Your task to perform on an android device: What's the weather today? Image 0: 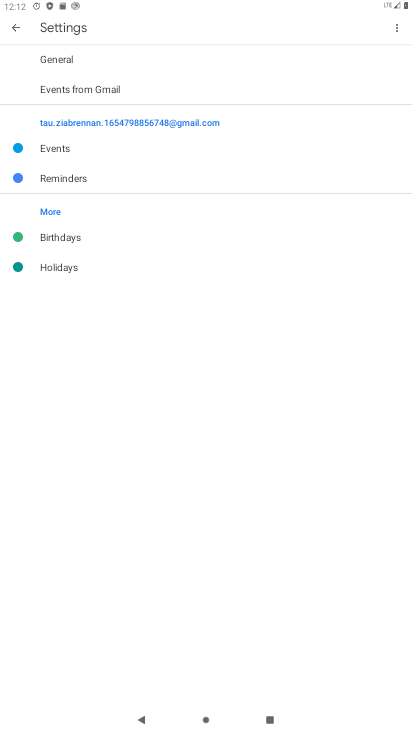
Step 0: press home button
Your task to perform on an android device: What's the weather today? Image 1: 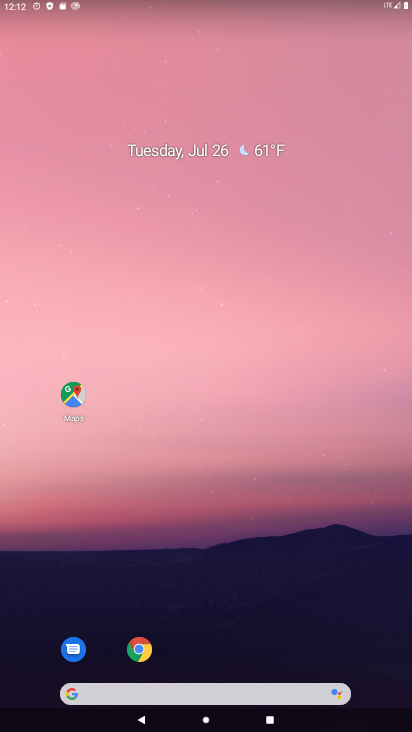
Step 1: drag from (230, 679) to (202, 57)
Your task to perform on an android device: What's the weather today? Image 2: 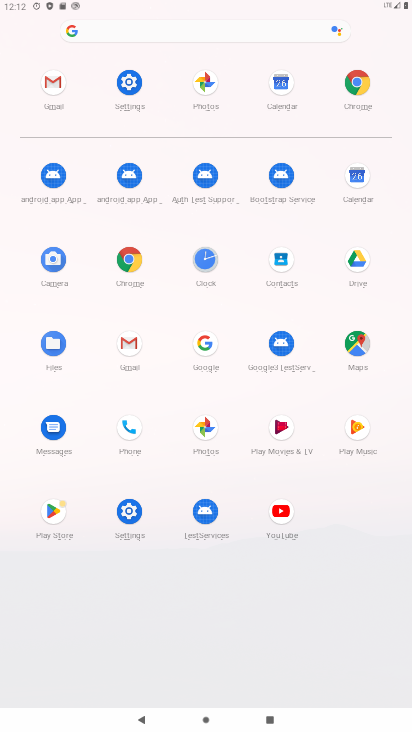
Step 2: click (205, 348)
Your task to perform on an android device: What's the weather today? Image 3: 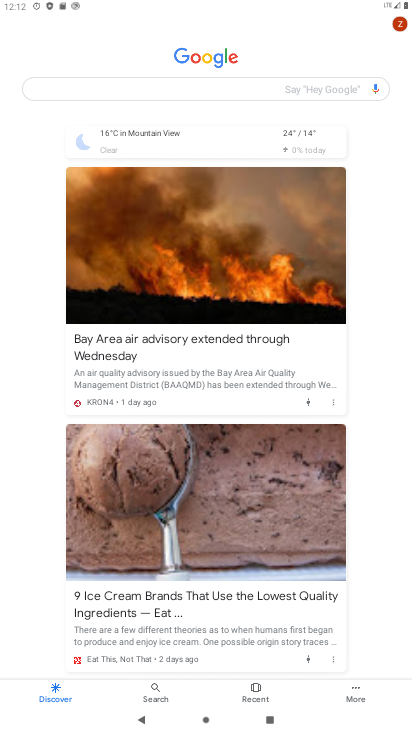
Step 3: click (187, 85)
Your task to perform on an android device: What's the weather today? Image 4: 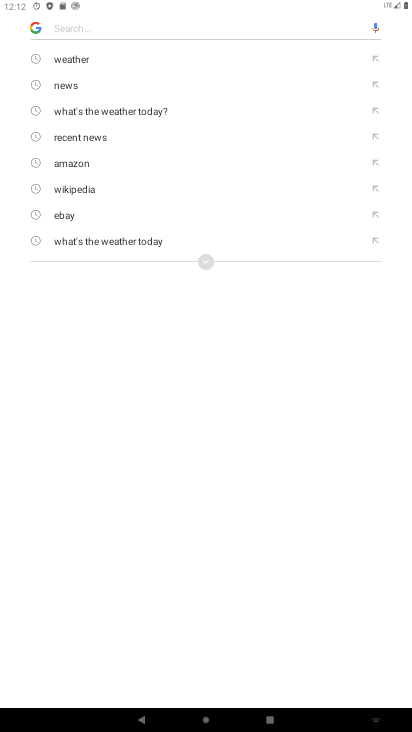
Step 4: click (21, 60)
Your task to perform on an android device: What's the weather today? Image 5: 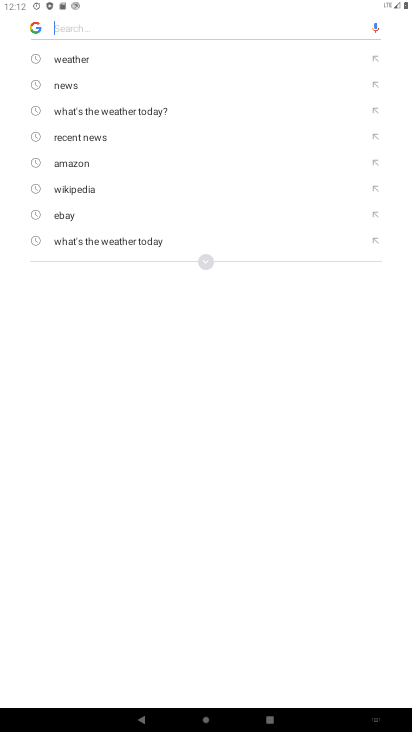
Step 5: click (69, 59)
Your task to perform on an android device: What's the weather today? Image 6: 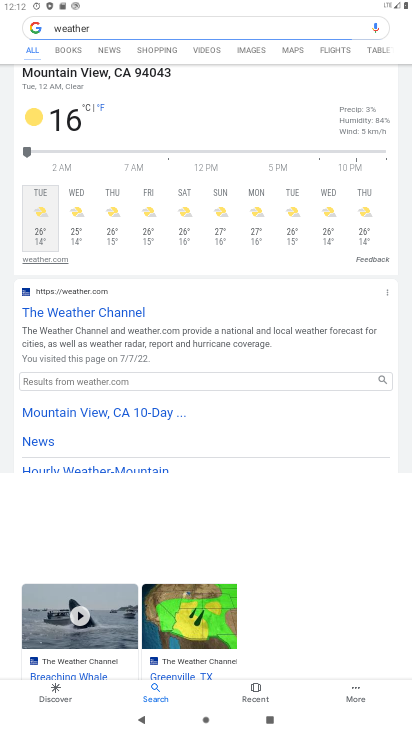
Step 6: click (42, 221)
Your task to perform on an android device: What's the weather today? Image 7: 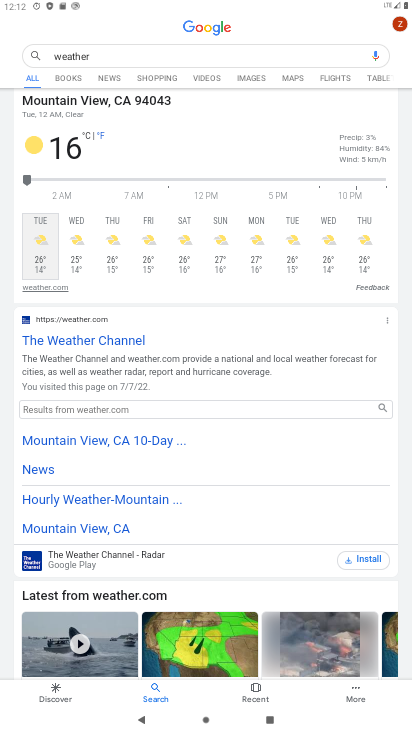
Step 7: task complete